Your task to perform on an android device: Go to sound settings Image 0: 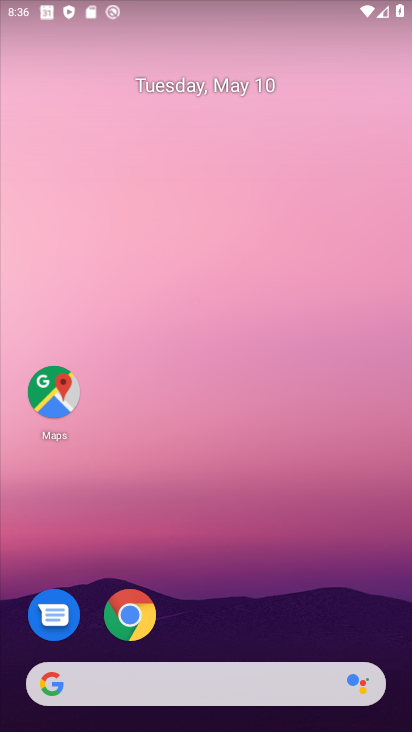
Step 0: drag from (192, 631) to (194, 101)
Your task to perform on an android device: Go to sound settings Image 1: 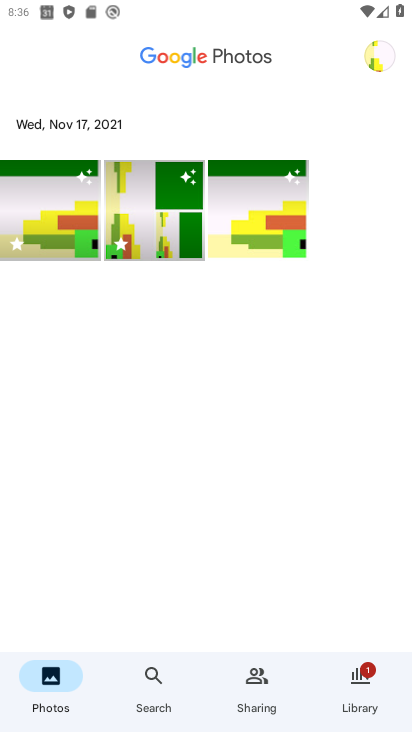
Step 1: press home button
Your task to perform on an android device: Go to sound settings Image 2: 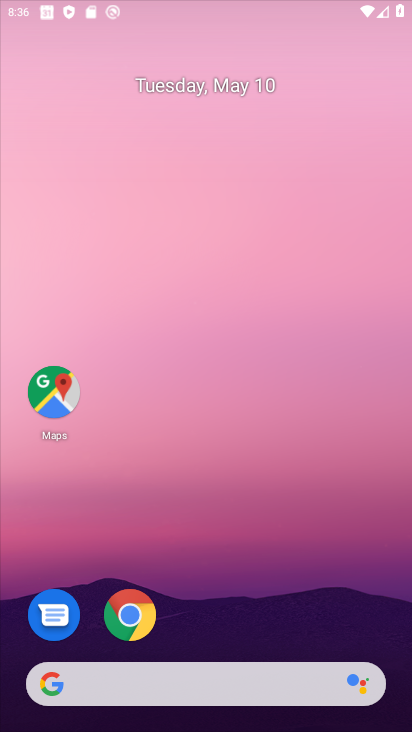
Step 2: drag from (225, 540) to (203, 288)
Your task to perform on an android device: Go to sound settings Image 3: 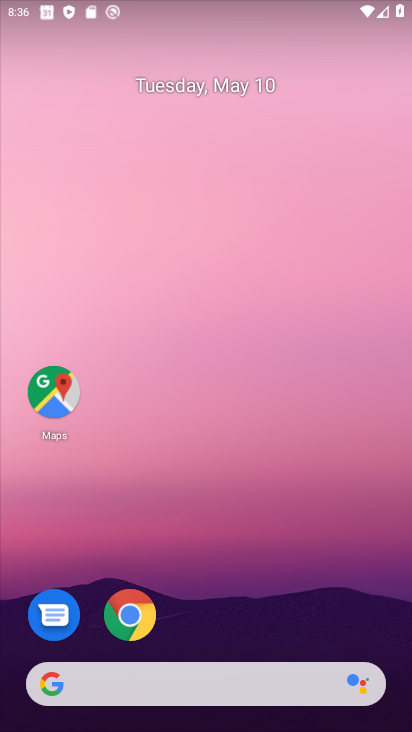
Step 3: drag from (163, 564) to (243, 177)
Your task to perform on an android device: Go to sound settings Image 4: 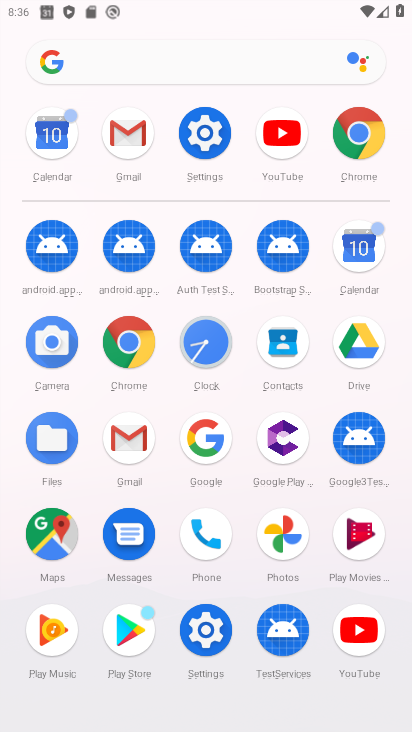
Step 4: click (201, 140)
Your task to perform on an android device: Go to sound settings Image 5: 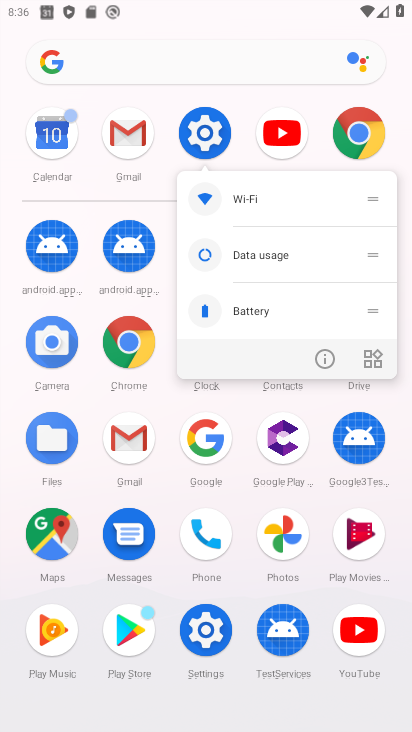
Step 5: click (318, 355)
Your task to perform on an android device: Go to sound settings Image 6: 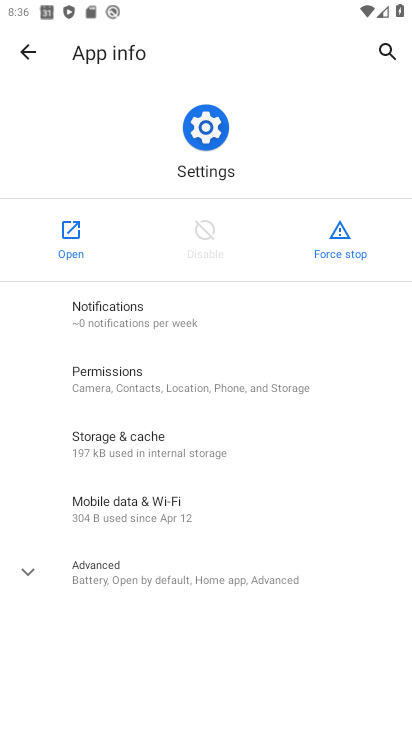
Step 6: click (84, 258)
Your task to perform on an android device: Go to sound settings Image 7: 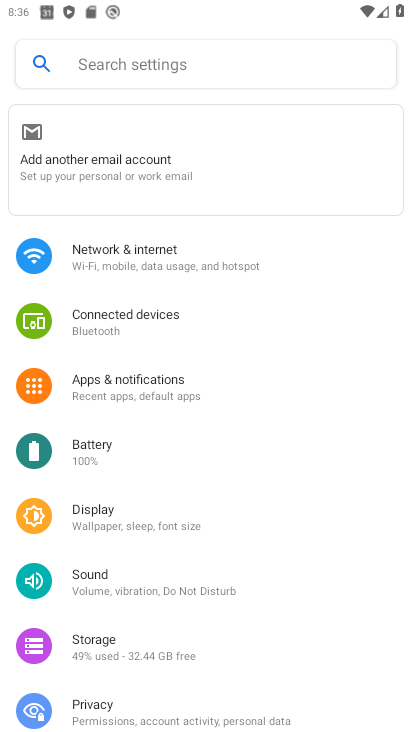
Step 7: drag from (125, 545) to (175, 249)
Your task to perform on an android device: Go to sound settings Image 8: 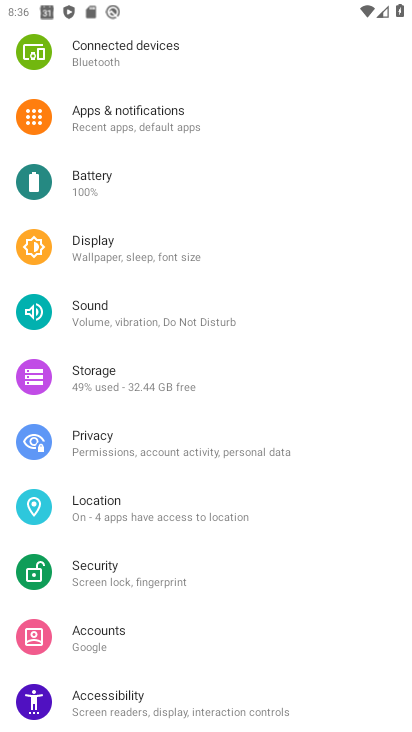
Step 8: click (121, 315)
Your task to perform on an android device: Go to sound settings Image 9: 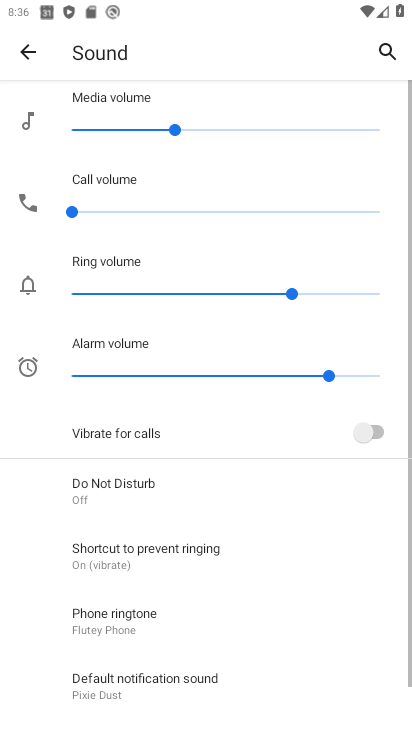
Step 9: task complete